Your task to perform on an android device: Show me popular games on the Play Store Image 0: 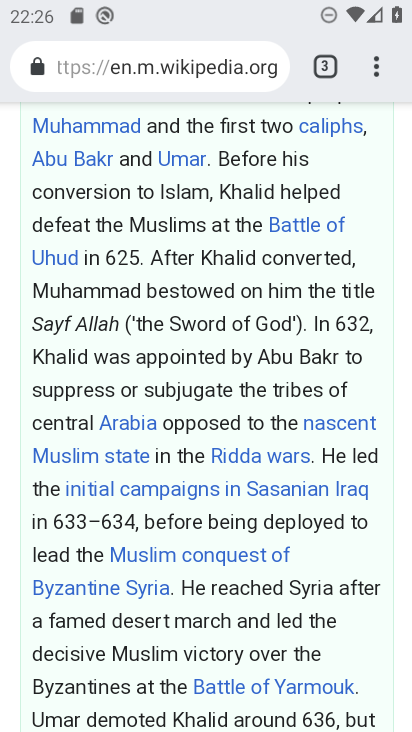
Step 0: press home button
Your task to perform on an android device: Show me popular games on the Play Store Image 1: 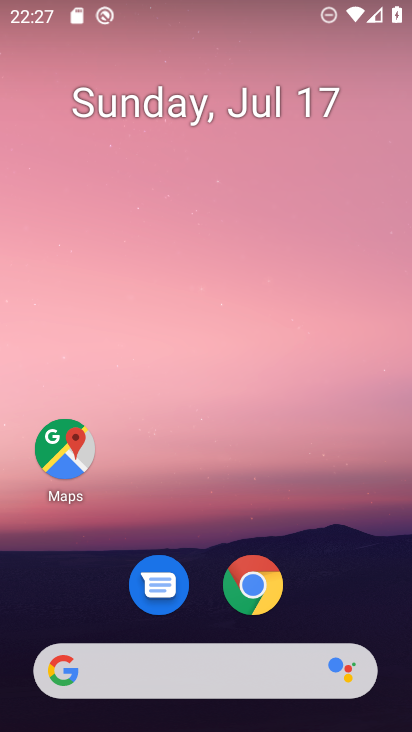
Step 1: drag from (173, 663) to (289, 65)
Your task to perform on an android device: Show me popular games on the Play Store Image 2: 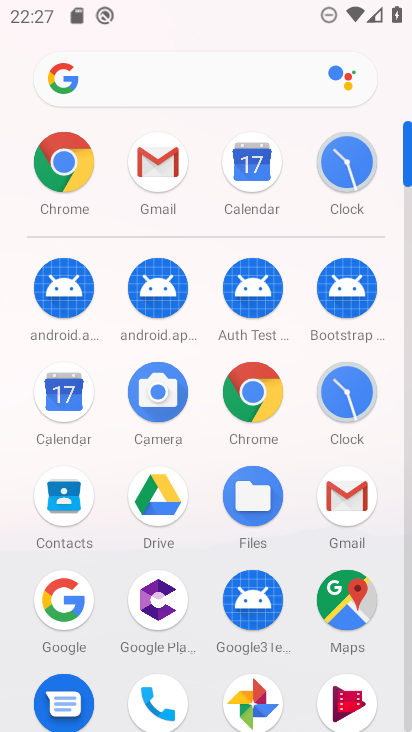
Step 2: drag from (196, 625) to (233, 162)
Your task to perform on an android device: Show me popular games on the Play Store Image 3: 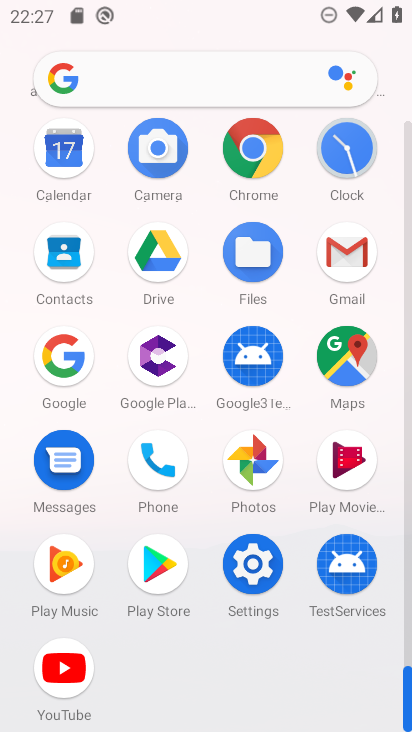
Step 3: click (162, 569)
Your task to perform on an android device: Show me popular games on the Play Store Image 4: 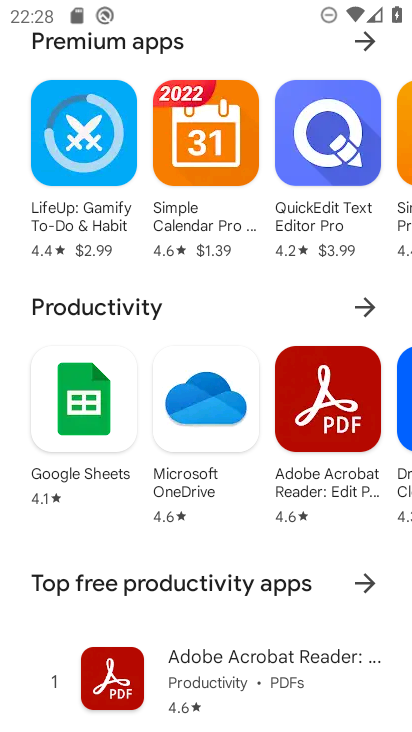
Step 4: drag from (260, 62) to (283, 613)
Your task to perform on an android device: Show me popular games on the Play Store Image 5: 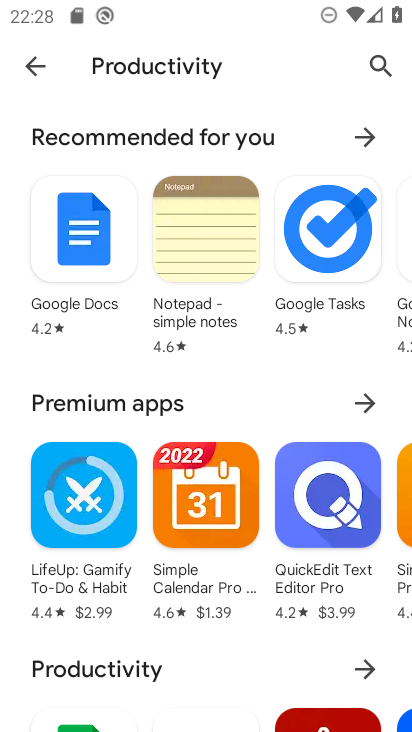
Step 5: click (30, 62)
Your task to perform on an android device: Show me popular games on the Play Store Image 6: 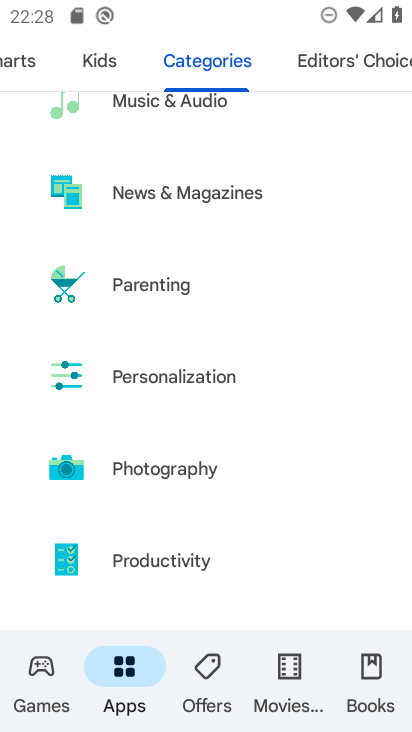
Step 6: click (43, 684)
Your task to perform on an android device: Show me popular games on the Play Store Image 7: 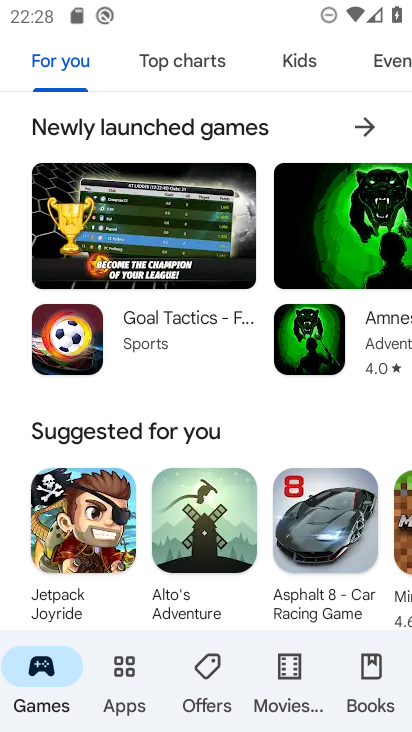
Step 7: drag from (120, 613) to (156, 138)
Your task to perform on an android device: Show me popular games on the Play Store Image 8: 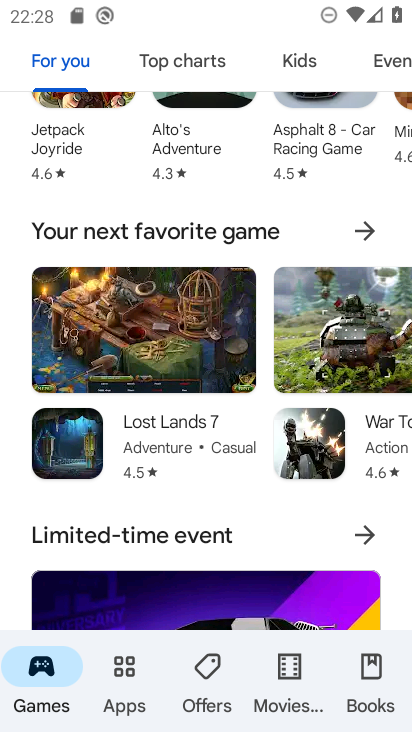
Step 8: drag from (196, 536) to (263, 17)
Your task to perform on an android device: Show me popular games on the Play Store Image 9: 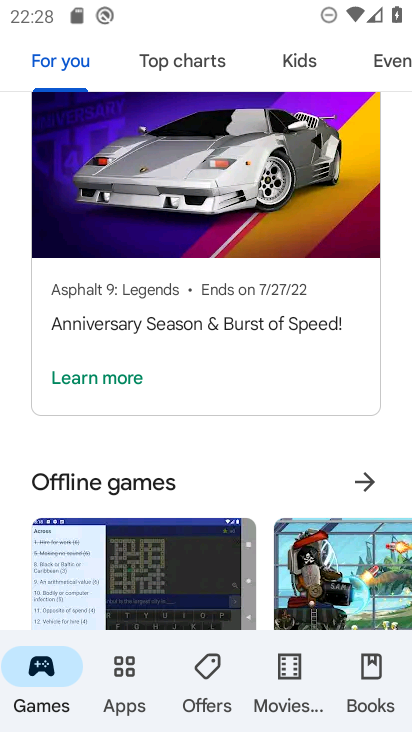
Step 9: drag from (230, 491) to (271, 87)
Your task to perform on an android device: Show me popular games on the Play Store Image 10: 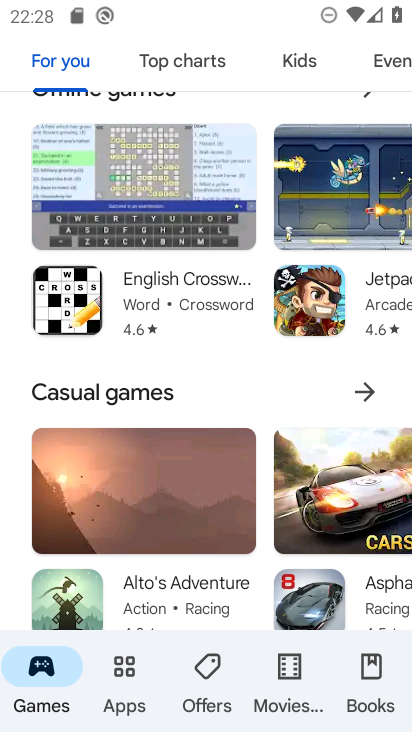
Step 10: drag from (201, 415) to (258, 13)
Your task to perform on an android device: Show me popular games on the Play Store Image 11: 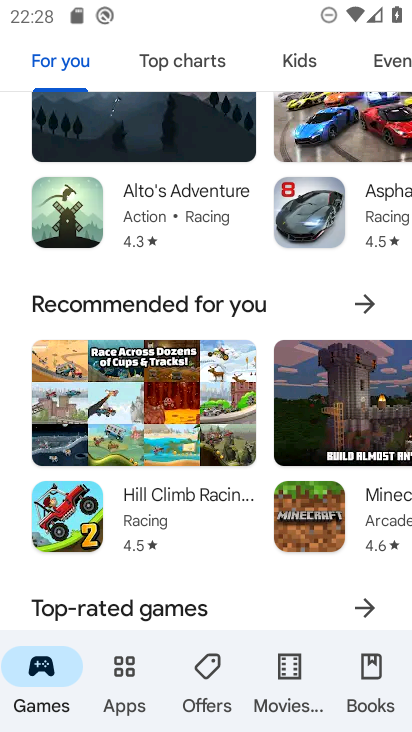
Step 11: drag from (222, 580) to (264, 52)
Your task to perform on an android device: Show me popular games on the Play Store Image 12: 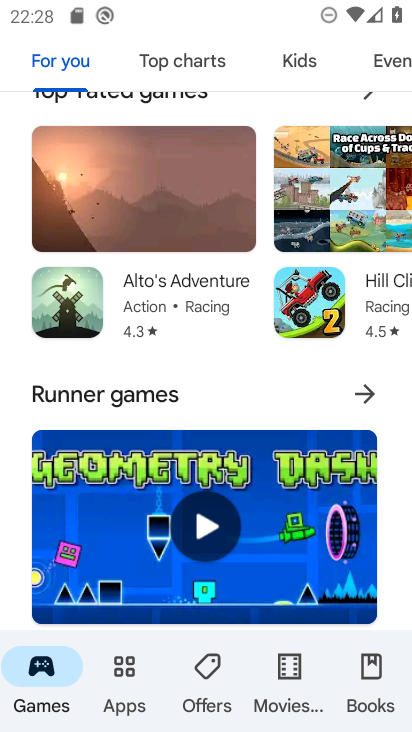
Step 12: drag from (223, 405) to (272, 121)
Your task to perform on an android device: Show me popular games on the Play Store Image 13: 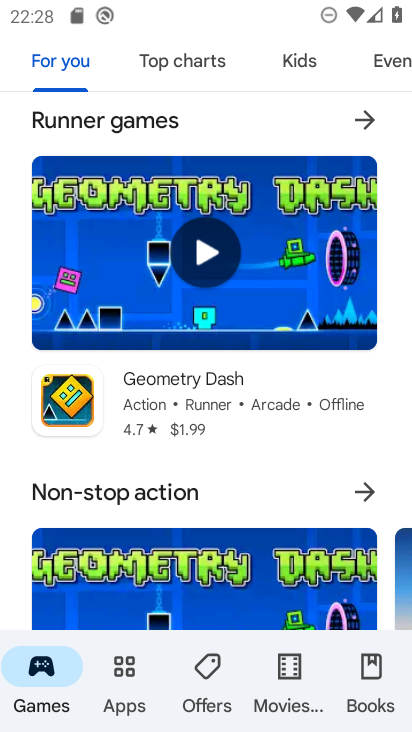
Step 13: drag from (224, 495) to (293, 82)
Your task to perform on an android device: Show me popular games on the Play Store Image 14: 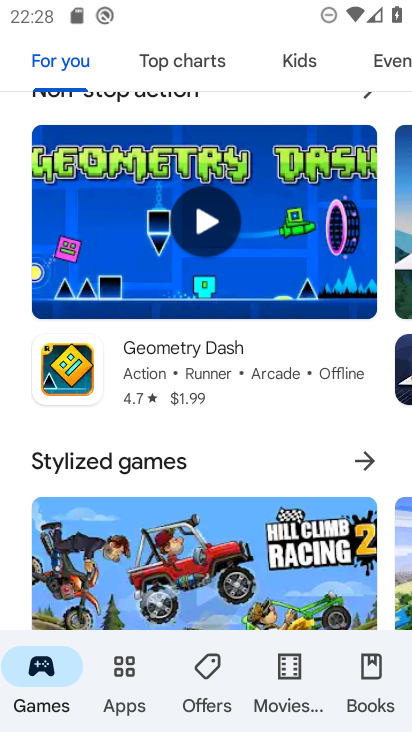
Step 14: drag from (248, 477) to (315, 69)
Your task to perform on an android device: Show me popular games on the Play Store Image 15: 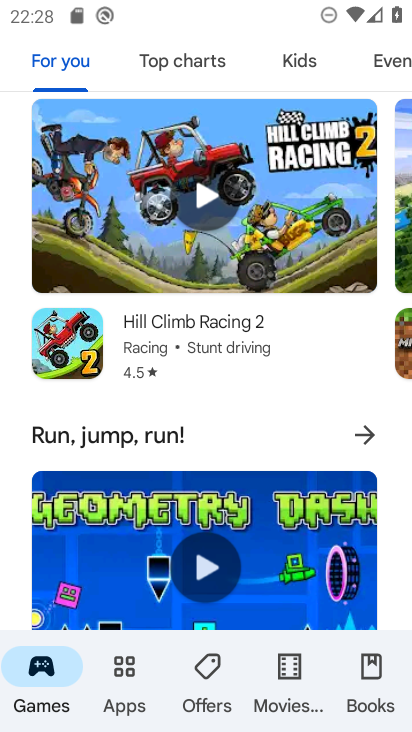
Step 15: drag from (254, 460) to (280, 97)
Your task to perform on an android device: Show me popular games on the Play Store Image 16: 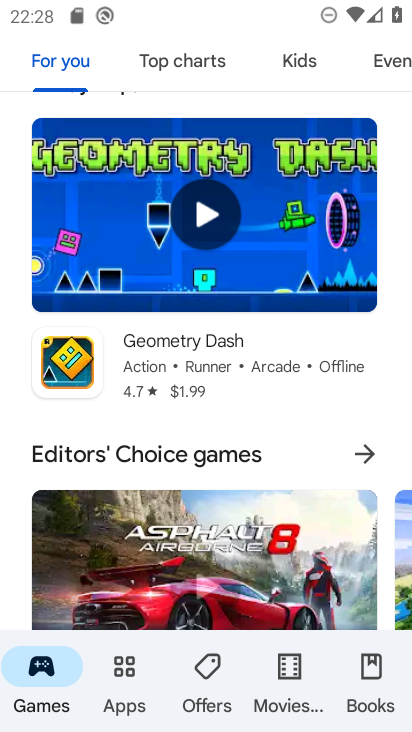
Step 16: drag from (275, 479) to (336, 160)
Your task to perform on an android device: Show me popular games on the Play Store Image 17: 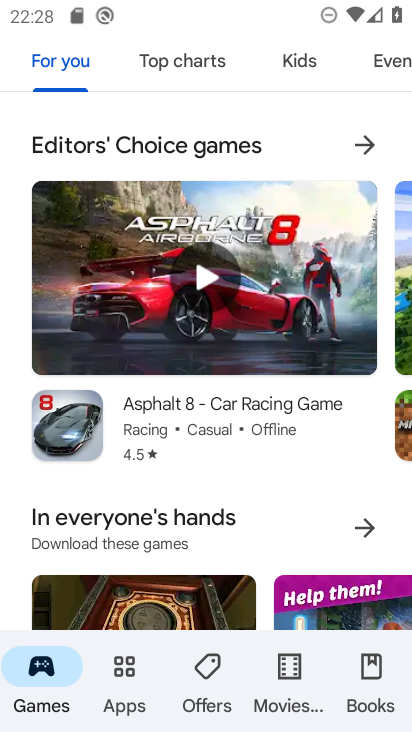
Step 17: drag from (309, 155) to (344, 648)
Your task to perform on an android device: Show me popular games on the Play Store Image 18: 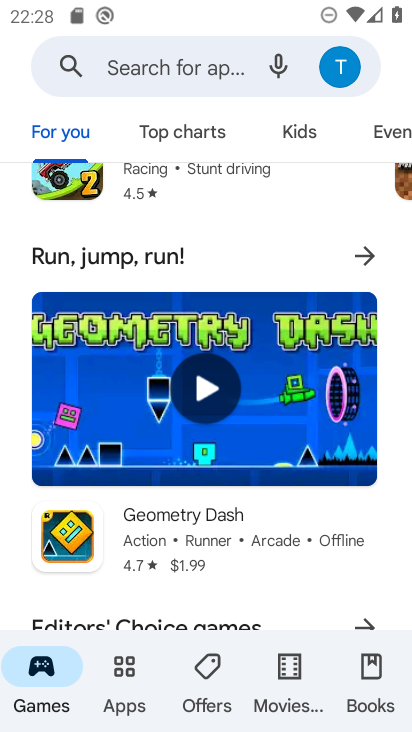
Step 18: drag from (287, 237) to (311, 710)
Your task to perform on an android device: Show me popular games on the Play Store Image 19: 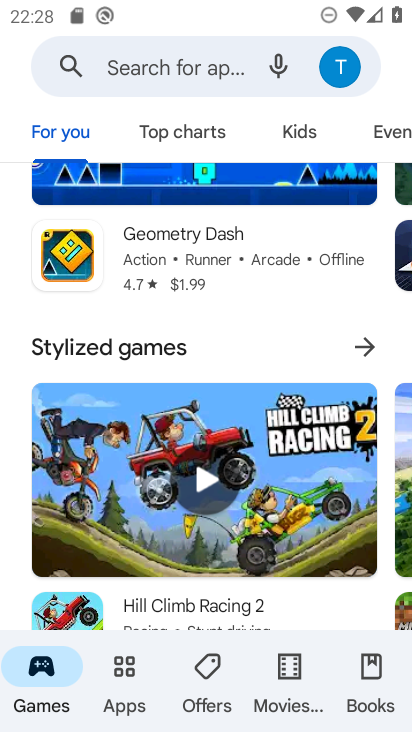
Step 19: drag from (256, 316) to (284, 694)
Your task to perform on an android device: Show me popular games on the Play Store Image 20: 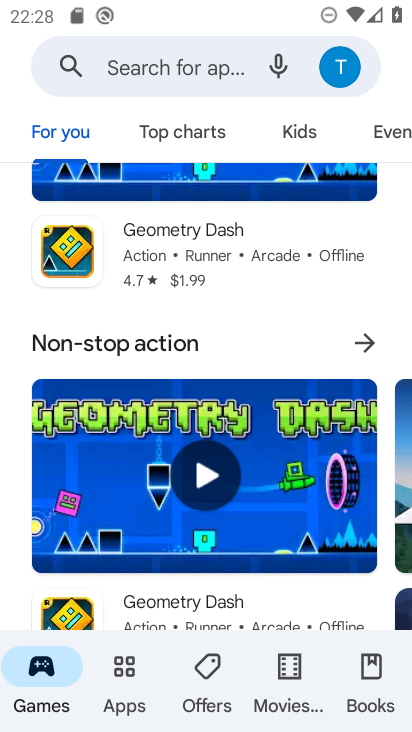
Step 20: drag from (289, 243) to (301, 648)
Your task to perform on an android device: Show me popular games on the Play Store Image 21: 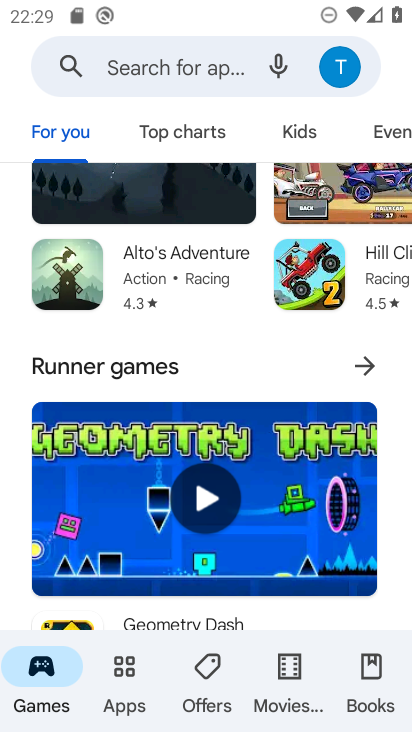
Step 21: drag from (223, 606) to (228, 701)
Your task to perform on an android device: Show me popular games on the Play Store Image 22: 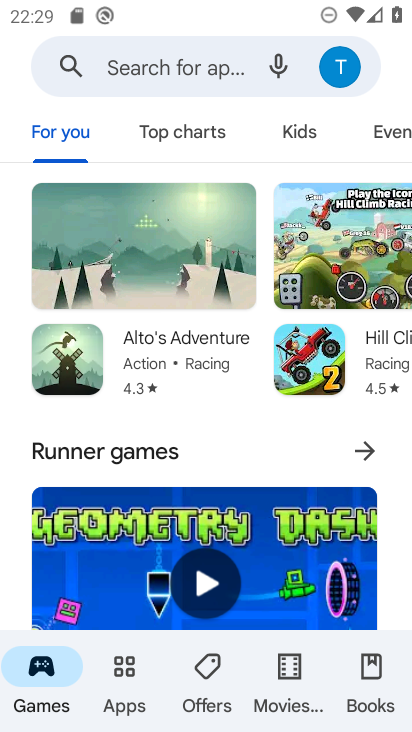
Step 22: drag from (259, 350) to (277, 719)
Your task to perform on an android device: Show me popular games on the Play Store Image 23: 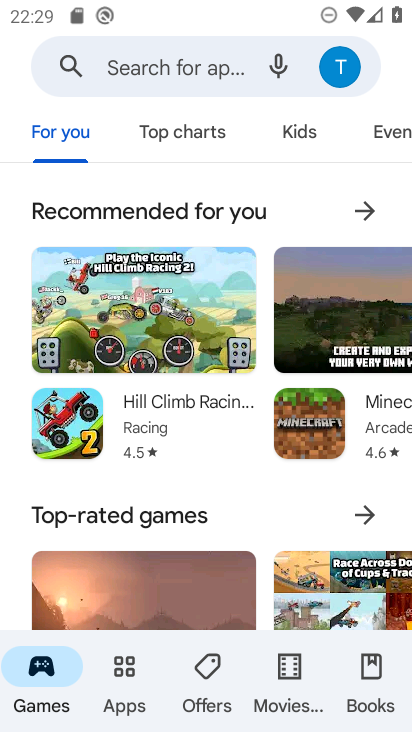
Step 23: drag from (222, 448) to (272, 725)
Your task to perform on an android device: Show me popular games on the Play Store Image 24: 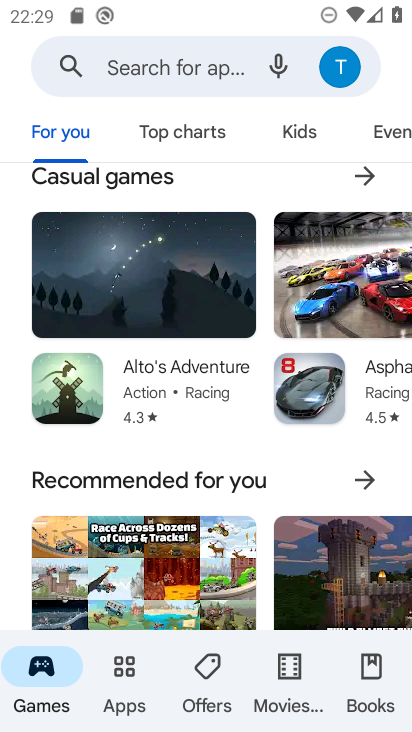
Step 24: drag from (232, 423) to (251, 730)
Your task to perform on an android device: Show me popular games on the Play Store Image 25: 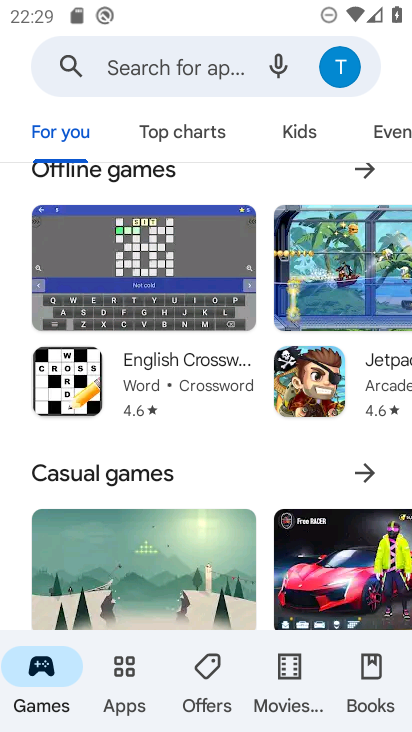
Step 25: drag from (242, 445) to (279, 705)
Your task to perform on an android device: Show me popular games on the Play Store Image 26: 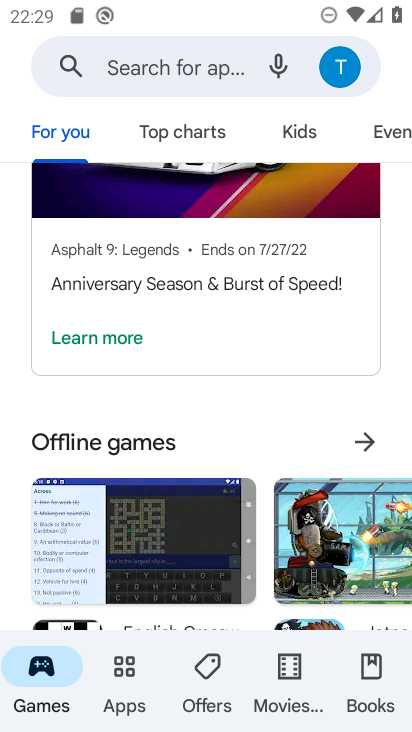
Step 26: drag from (249, 405) to (256, 725)
Your task to perform on an android device: Show me popular games on the Play Store Image 27: 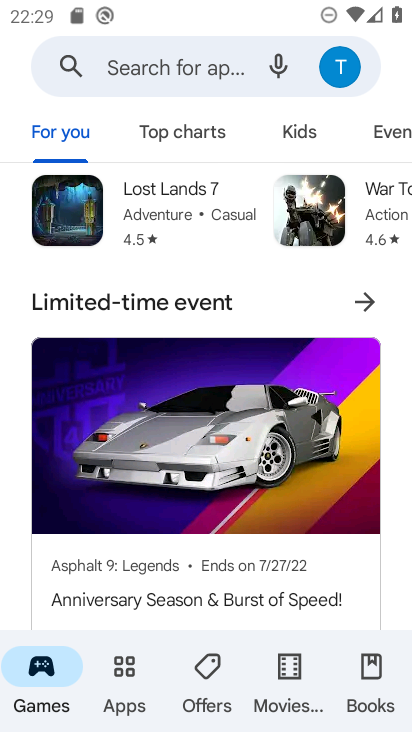
Step 27: drag from (266, 267) to (275, 721)
Your task to perform on an android device: Show me popular games on the Play Store Image 28: 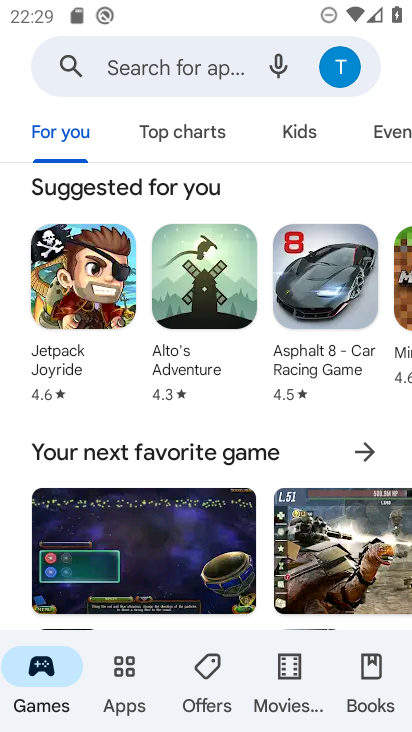
Step 28: drag from (284, 412) to (310, 697)
Your task to perform on an android device: Show me popular games on the Play Store Image 29: 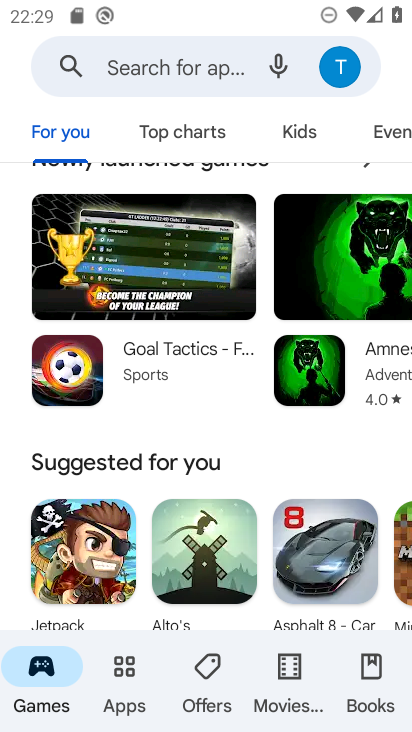
Step 29: drag from (283, 449) to (274, 714)
Your task to perform on an android device: Show me popular games on the Play Store Image 30: 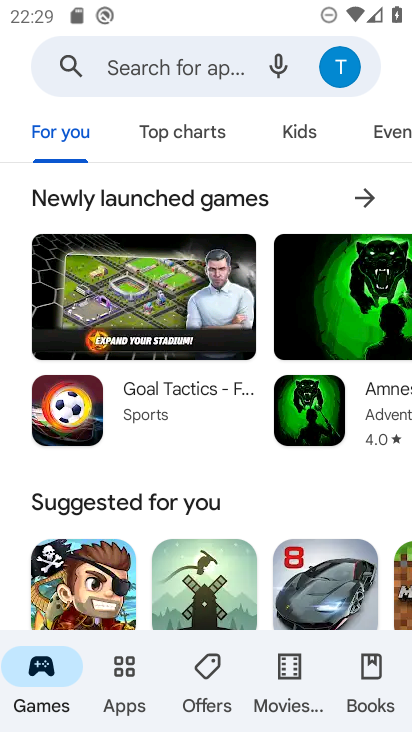
Step 30: drag from (256, 489) to (339, 134)
Your task to perform on an android device: Show me popular games on the Play Store Image 31: 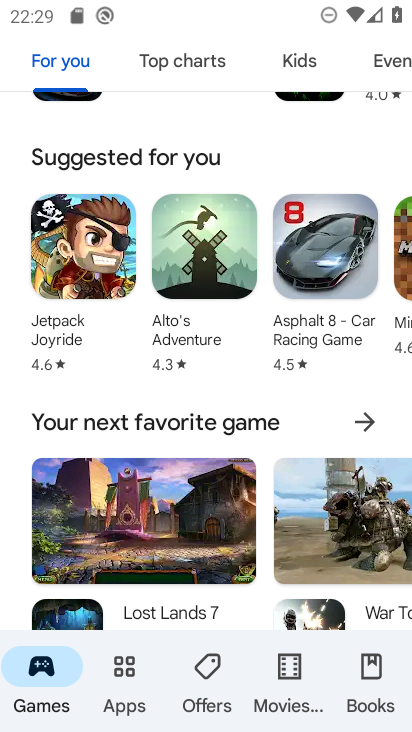
Step 31: drag from (255, 606) to (342, 92)
Your task to perform on an android device: Show me popular games on the Play Store Image 32: 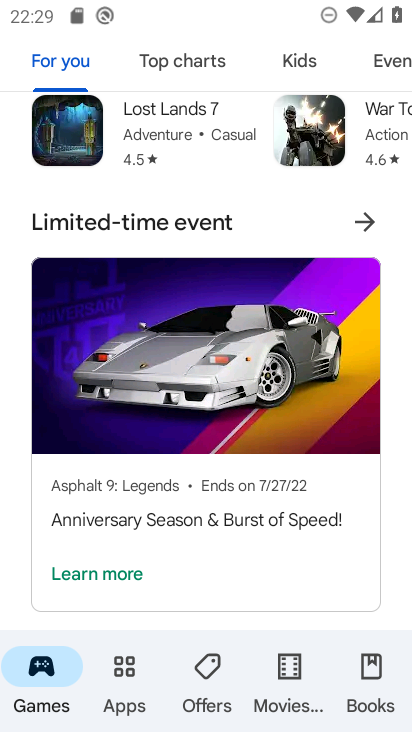
Step 32: drag from (231, 590) to (319, 64)
Your task to perform on an android device: Show me popular games on the Play Store Image 33: 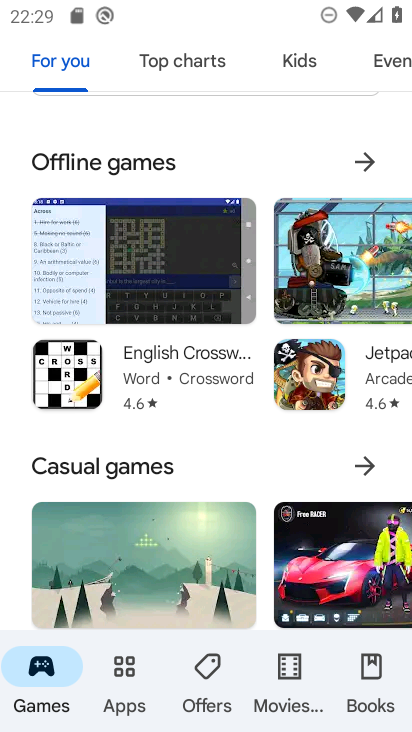
Step 33: drag from (223, 496) to (356, 4)
Your task to perform on an android device: Show me popular games on the Play Store Image 34: 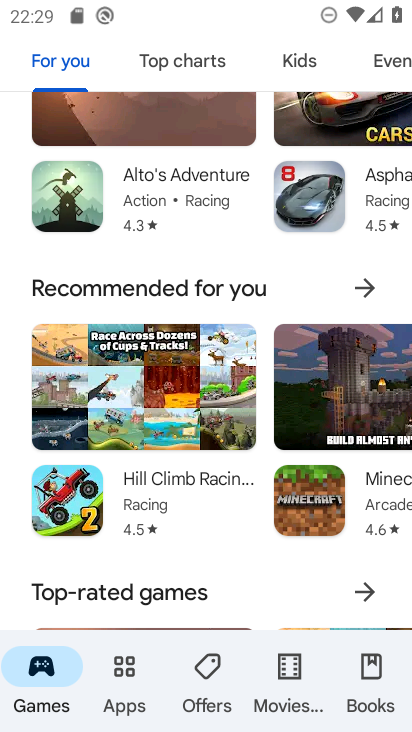
Step 34: click (368, 592)
Your task to perform on an android device: Show me popular games on the Play Store Image 35: 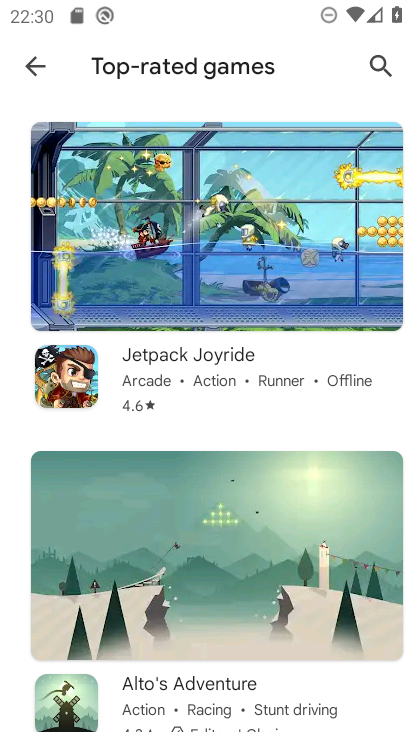
Step 35: task complete